Your task to perform on an android device: toggle location history Image 0: 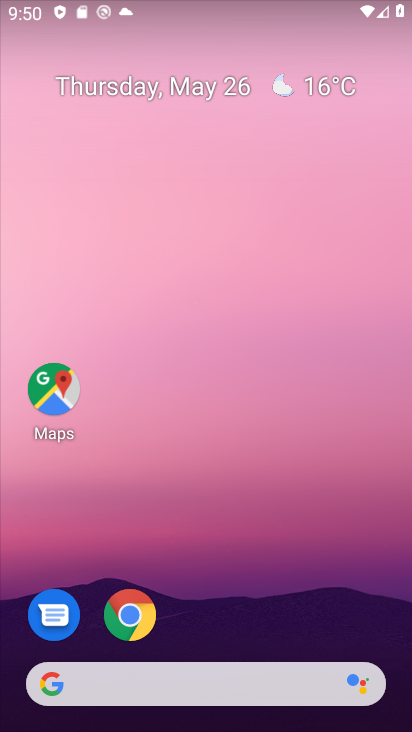
Step 0: drag from (276, 714) to (285, 209)
Your task to perform on an android device: toggle location history Image 1: 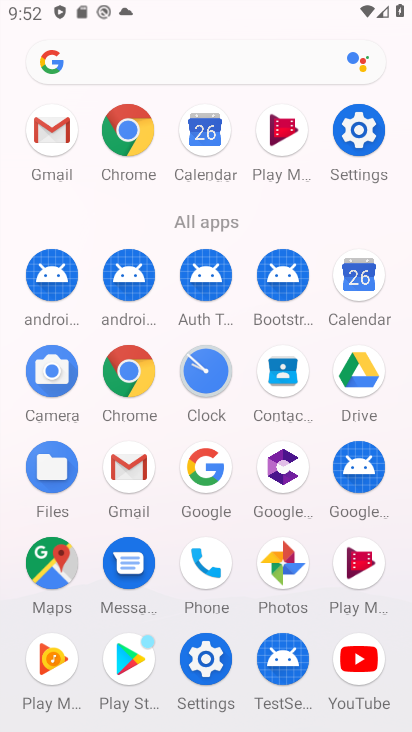
Step 1: click (358, 137)
Your task to perform on an android device: toggle location history Image 2: 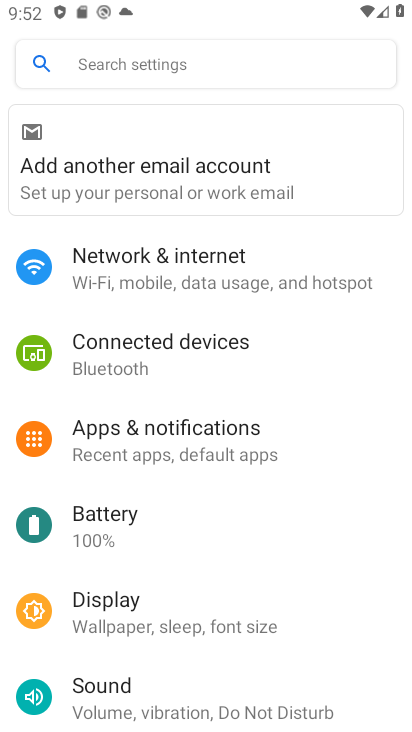
Step 2: click (186, 62)
Your task to perform on an android device: toggle location history Image 3: 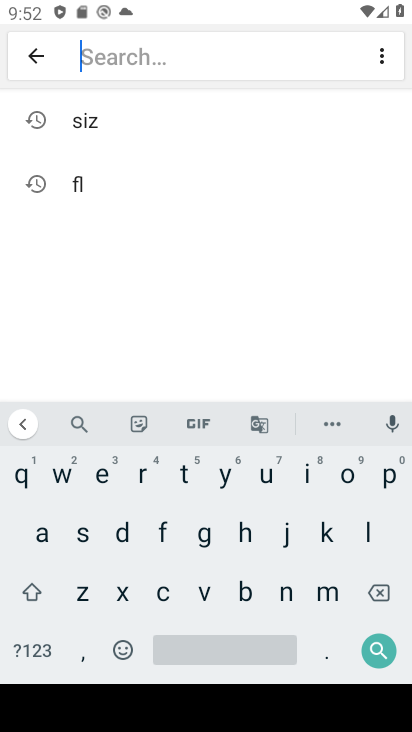
Step 3: click (370, 518)
Your task to perform on an android device: toggle location history Image 4: 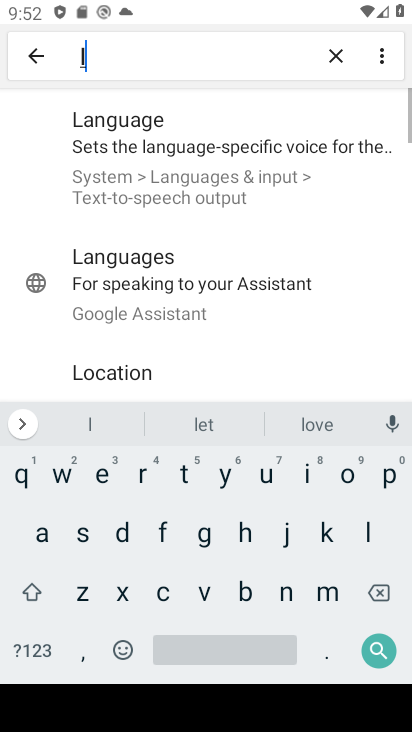
Step 4: click (347, 497)
Your task to perform on an android device: toggle location history Image 5: 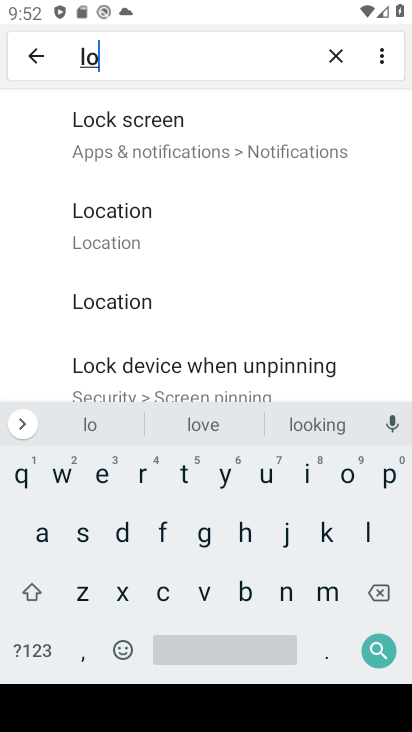
Step 5: click (178, 228)
Your task to perform on an android device: toggle location history Image 6: 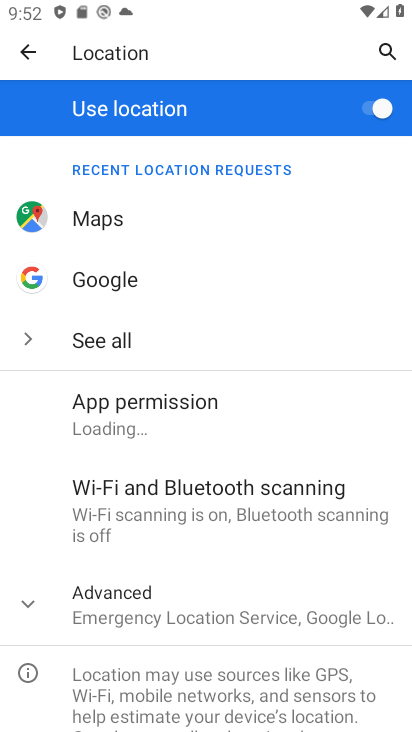
Step 6: click (44, 613)
Your task to perform on an android device: toggle location history Image 7: 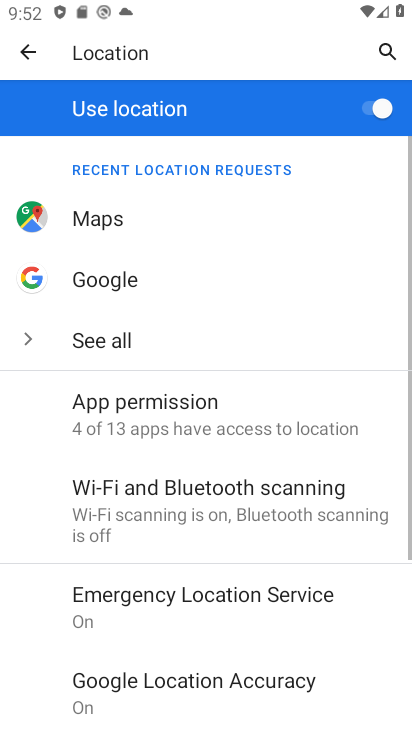
Step 7: drag from (196, 632) to (186, 504)
Your task to perform on an android device: toggle location history Image 8: 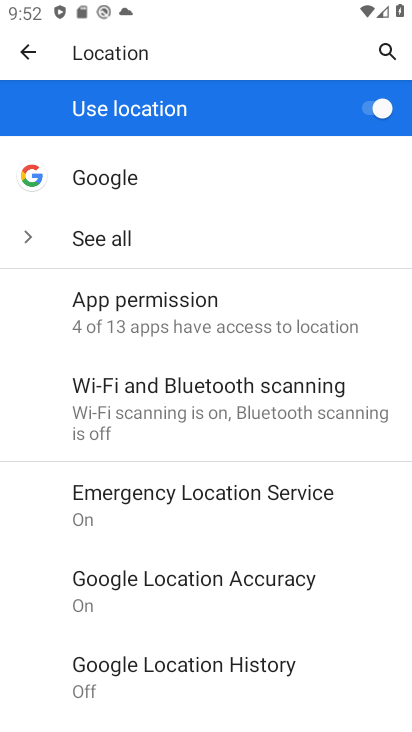
Step 8: click (217, 649)
Your task to perform on an android device: toggle location history Image 9: 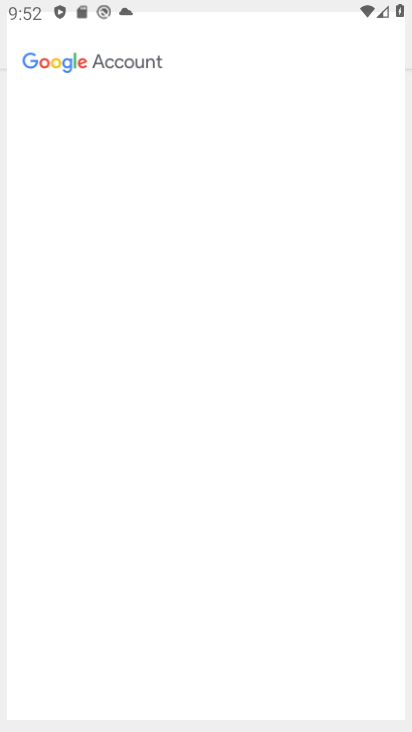
Step 9: task complete